Your task to perform on an android device: Show me productivity apps on the Play Store Image 0: 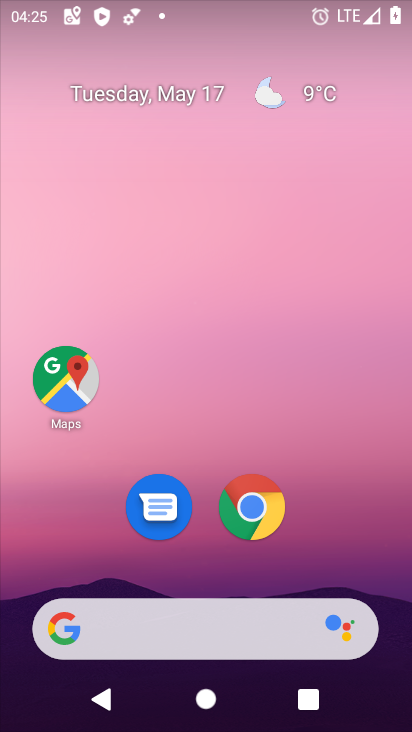
Step 0: drag from (349, 558) to (199, 35)
Your task to perform on an android device: Show me productivity apps on the Play Store Image 1: 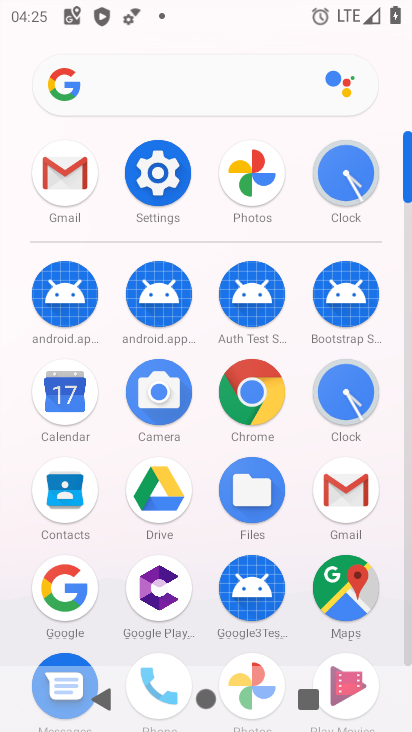
Step 1: drag from (219, 618) to (188, 202)
Your task to perform on an android device: Show me productivity apps on the Play Store Image 2: 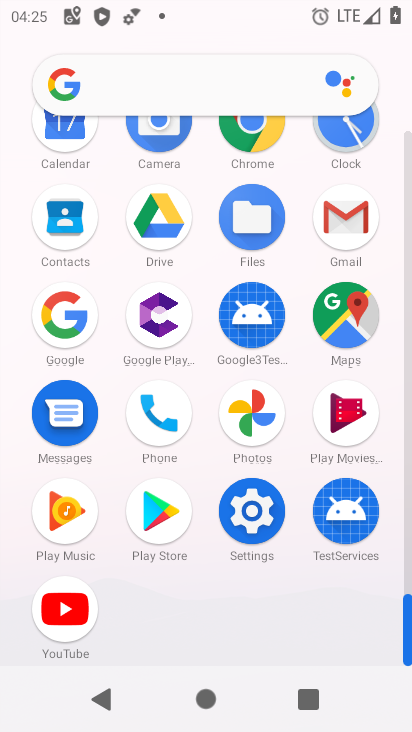
Step 2: click (161, 512)
Your task to perform on an android device: Show me productivity apps on the Play Store Image 3: 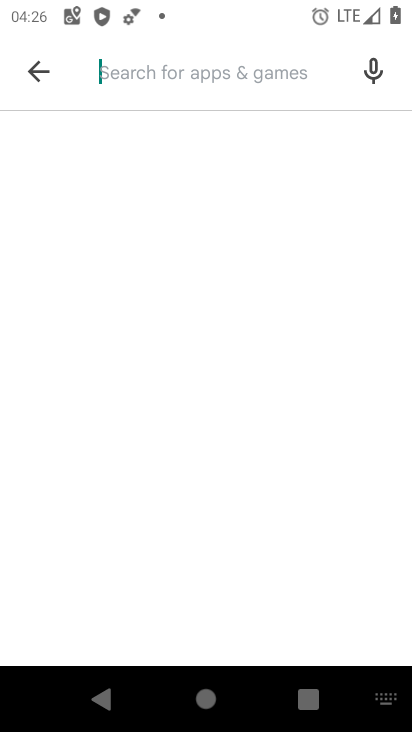
Step 3: type "productivity apps"
Your task to perform on an android device: Show me productivity apps on the Play Store Image 4: 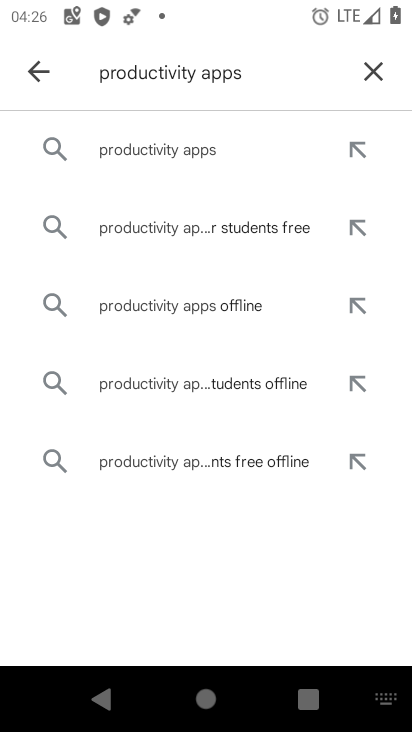
Step 4: click (159, 143)
Your task to perform on an android device: Show me productivity apps on the Play Store Image 5: 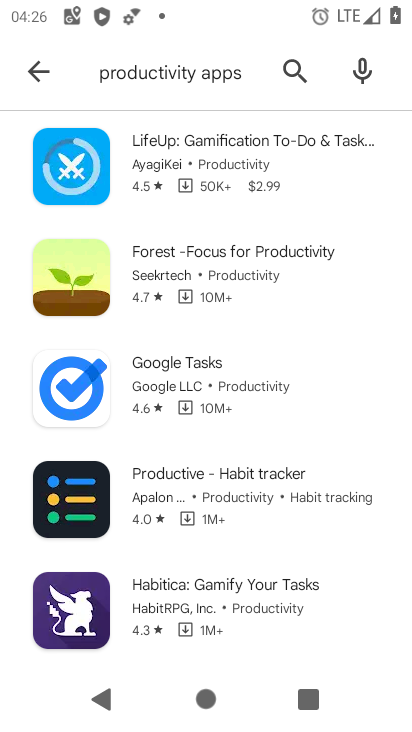
Step 5: task complete